Your task to perform on an android device: change notifications settings Image 0: 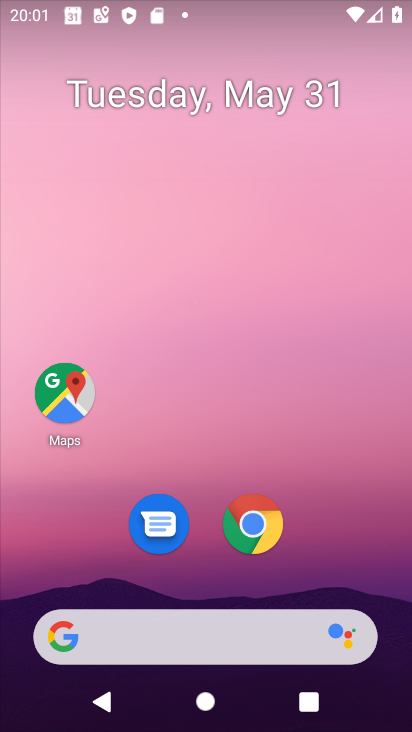
Step 0: drag from (271, 468) to (271, 15)
Your task to perform on an android device: change notifications settings Image 1: 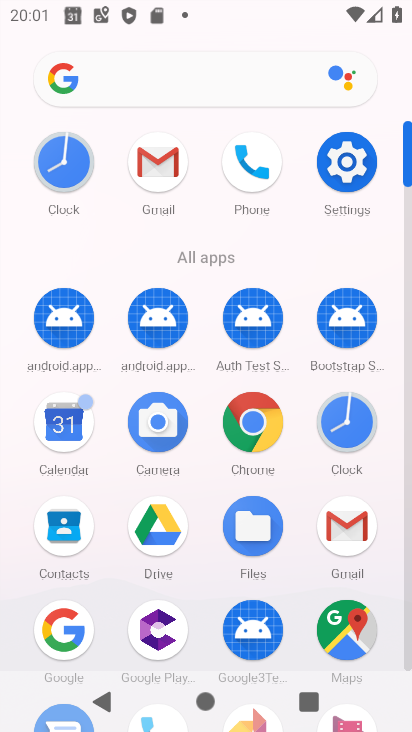
Step 1: click (347, 164)
Your task to perform on an android device: change notifications settings Image 2: 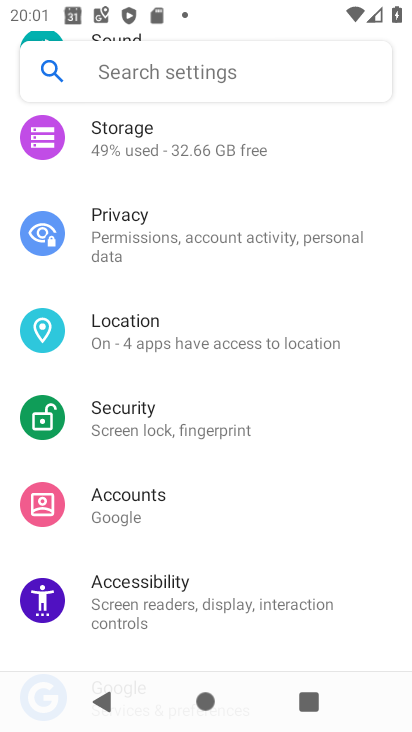
Step 2: drag from (235, 203) to (239, 607)
Your task to perform on an android device: change notifications settings Image 3: 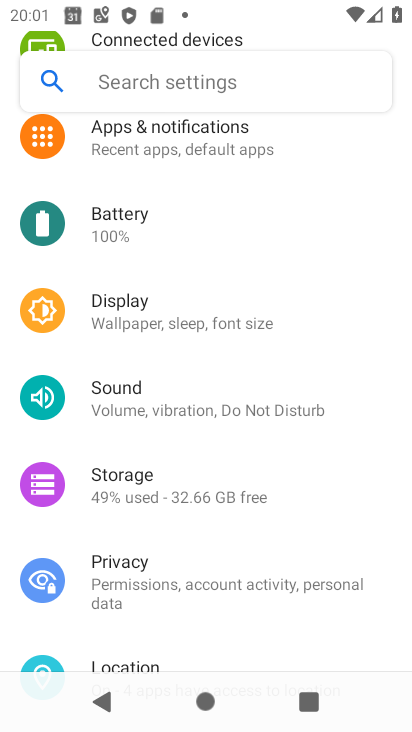
Step 3: click (222, 132)
Your task to perform on an android device: change notifications settings Image 4: 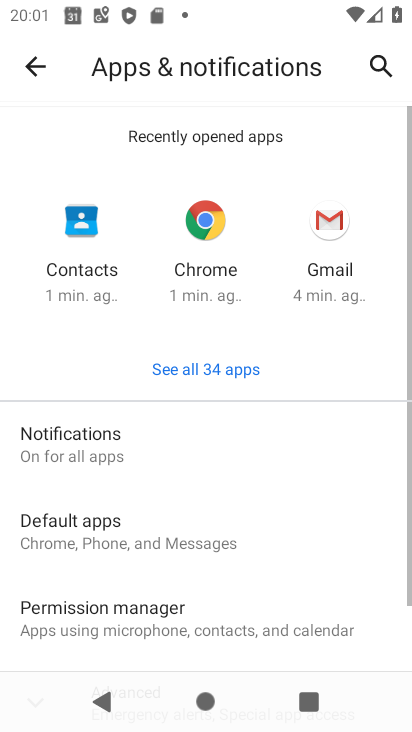
Step 4: click (157, 440)
Your task to perform on an android device: change notifications settings Image 5: 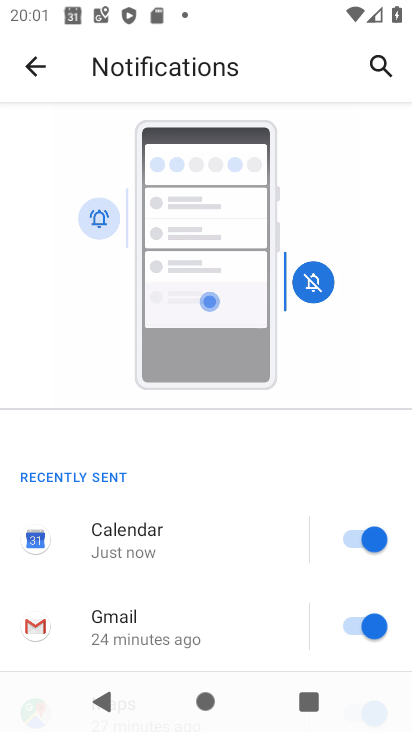
Step 5: drag from (214, 526) to (280, 67)
Your task to perform on an android device: change notifications settings Image 6: 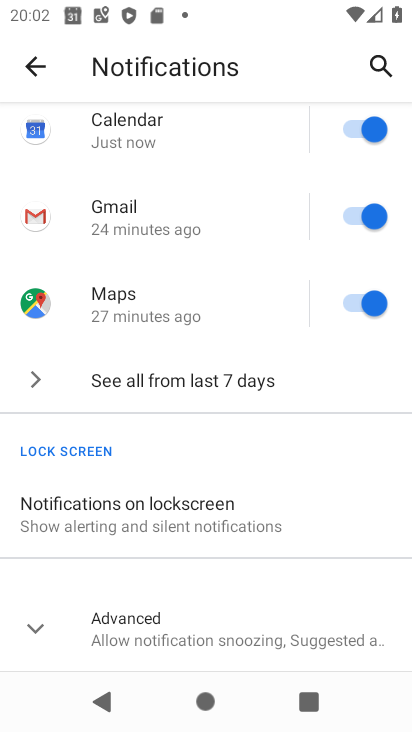
Step 6: click (236, 383)
Your task to perform on an android device: change notifications settings Image 7: 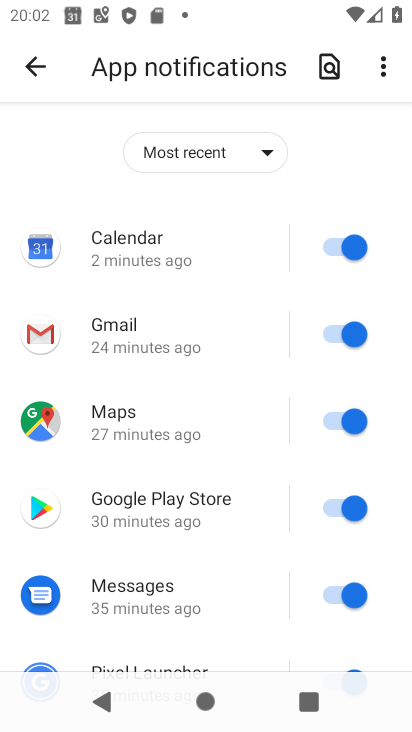
Step 7: click (345, 243)
Your task to perform on an android device: change notifications settings Image 8: 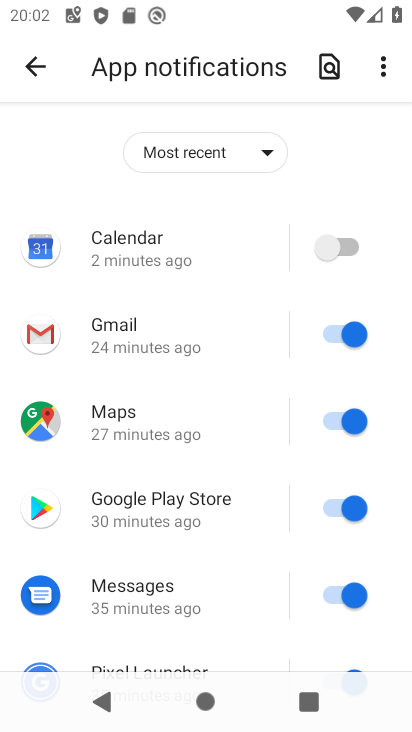
Step 8: click (345, 340)
Your task to perform on an android device: change notifications settings Image 9: 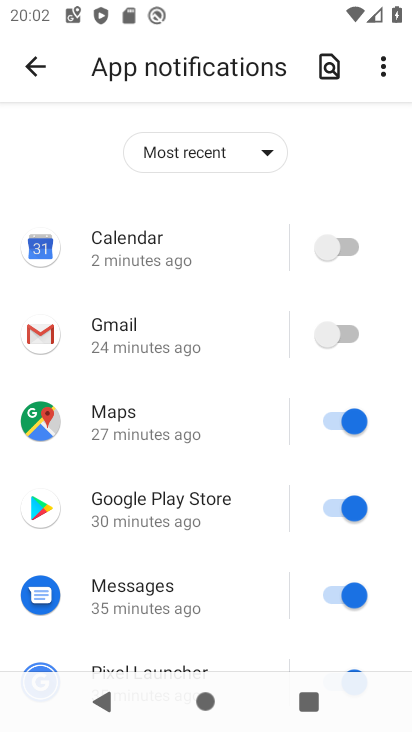
Step 9: click (352, 411)
Your task to perform on an android device: change notifications settings Image 10: 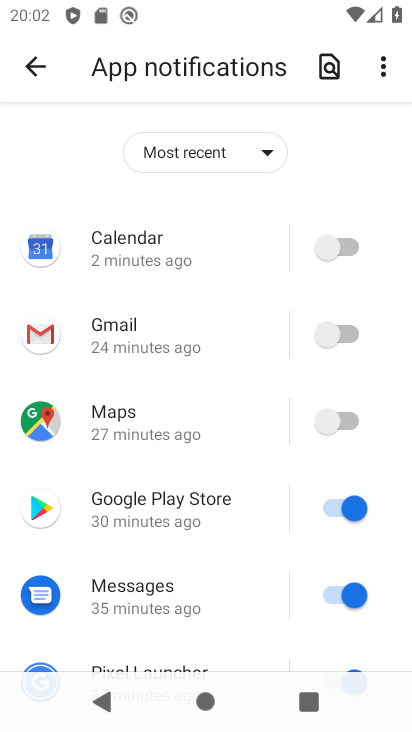
Step 10: click (349, 501)
Your task to perform on an android device: change notifications settings Image 11: 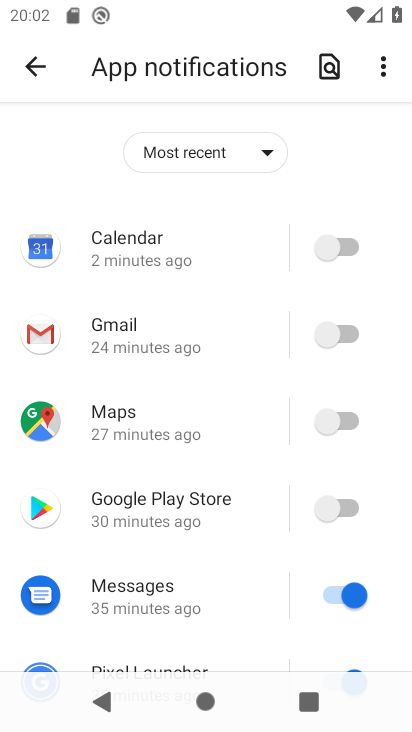
Step 11: click (349, 593)
Your task to perform on an android device: change notifications settings Image 12: 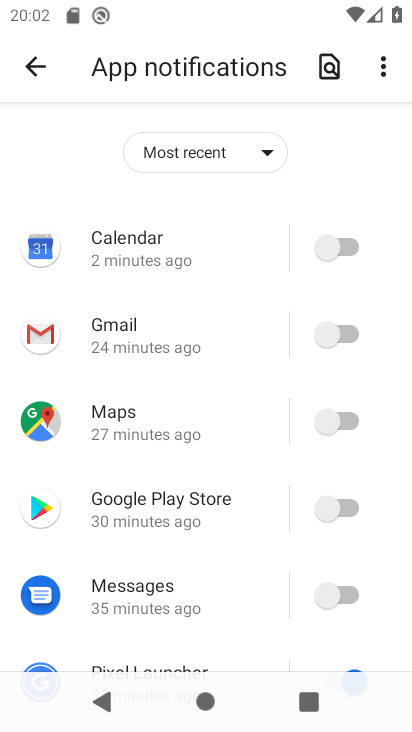
Step 12: drag from (243, 518) to (231, 123)
Your task to perform on an android device: change notifications settings Image 13: 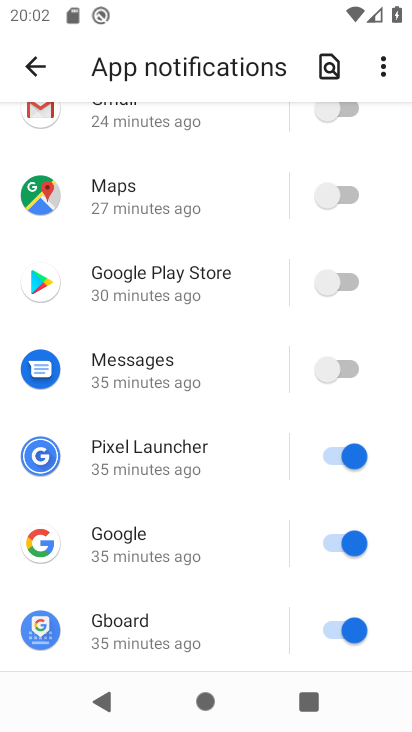
Step 13: click (335, 446)
Your task to perform on an android device: change notifications settings Image 14: 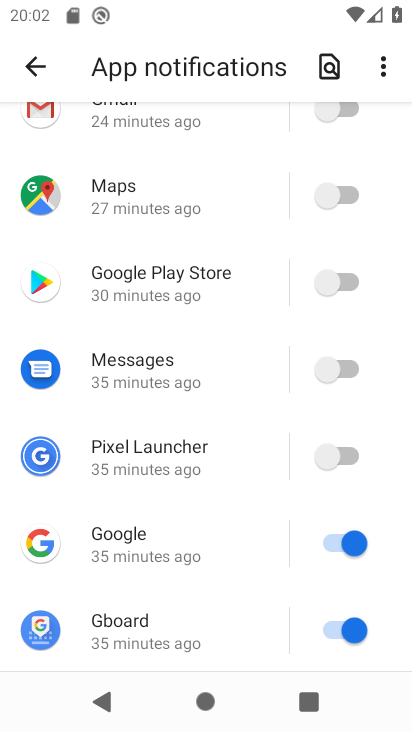
Step 14: click (350, 539)
Your task to perform on an android device: change notifications settings Image 15: 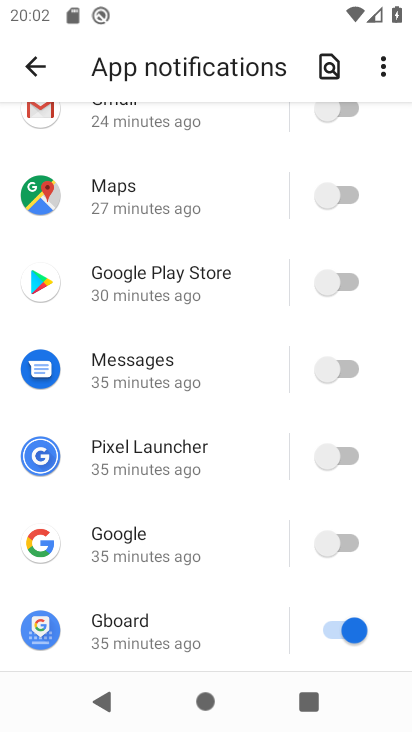
Step 15: click (352, 620)
Your task to perform on an android device: change notifications settings Image 16: 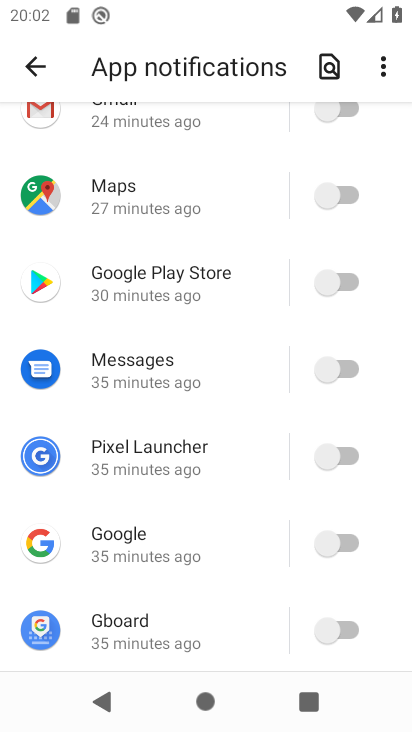
Step 16: task complete